Your task to perform on an android device: turn off wifi Image 0: 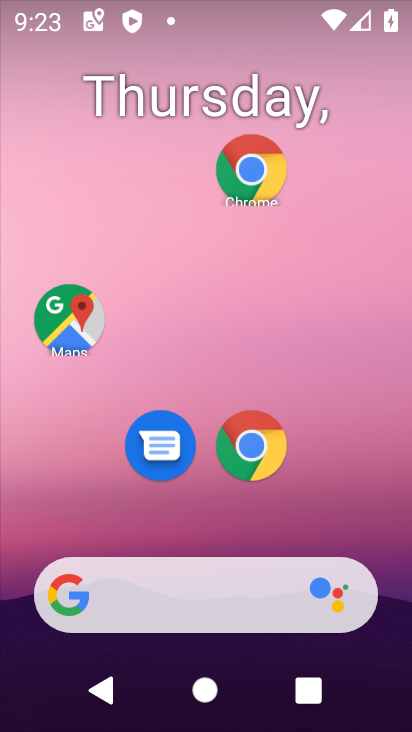
Step 0: drag from (211, 472) to (223, 1)
Your task to perform on an android device: turn off wifi Image 1: 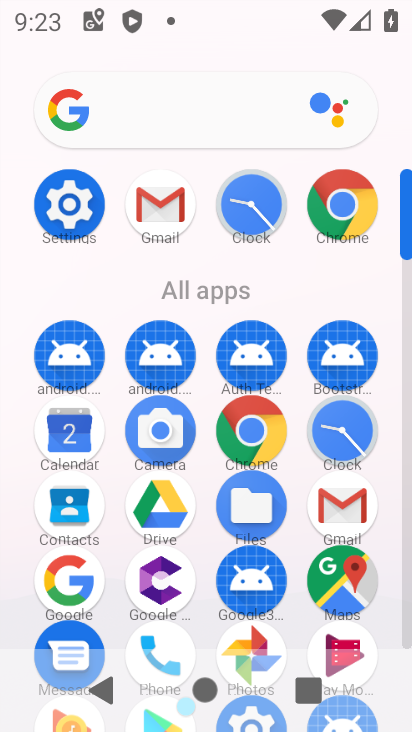
Step 1: click (45, 244)
Your task to perform on an android device: turn off wifi Image 2: 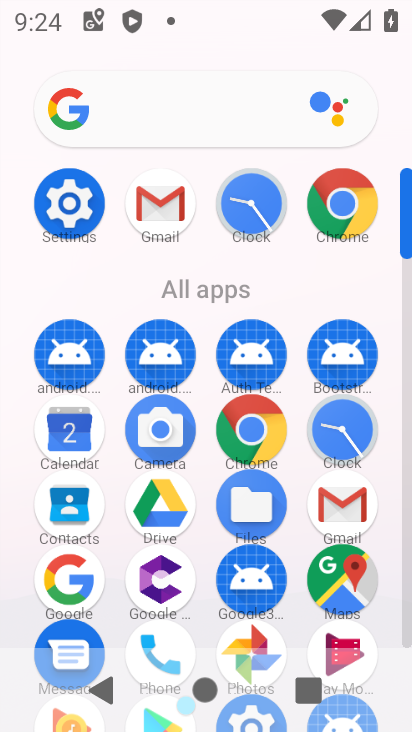
Step 2: click (69, 206)
Your task to perform on an android device: turn off wifi Image 3: 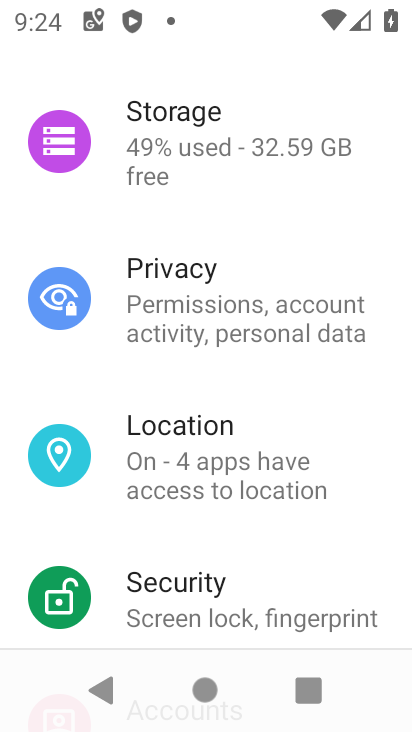
Step 3: drag from (209, 201) to (152, 595)
Your task to perform on an android device: turn off wifi Image 4: 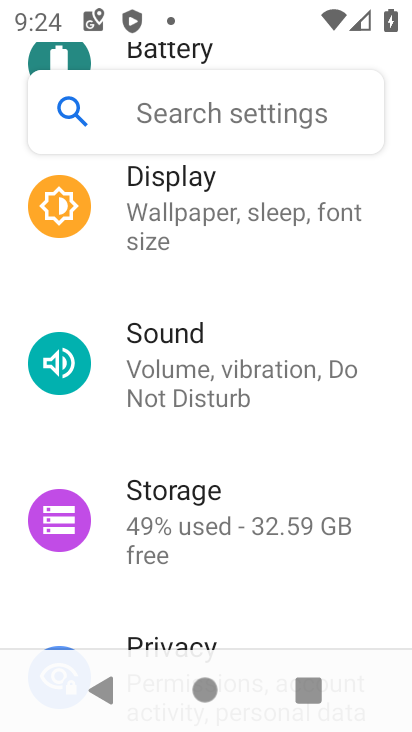
Step 4: drag from (207, 225) to (163, 676)
Your task to perform on an android device: turn off wifi Image 5: 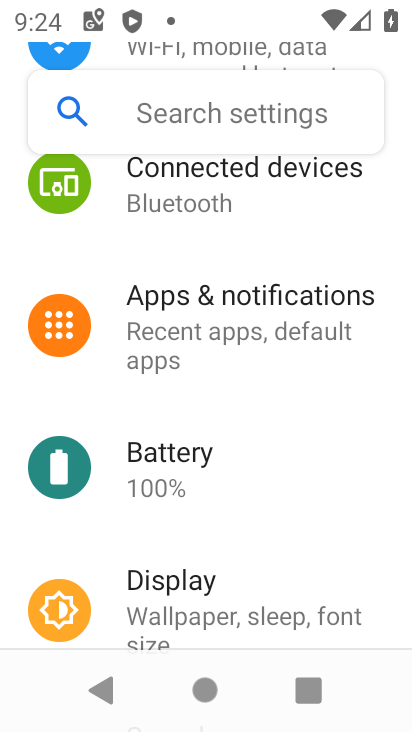
Step 5: drag from (220, 257) to (190, 558)
Your task to perform on an android device: turn off wifi Image 6: 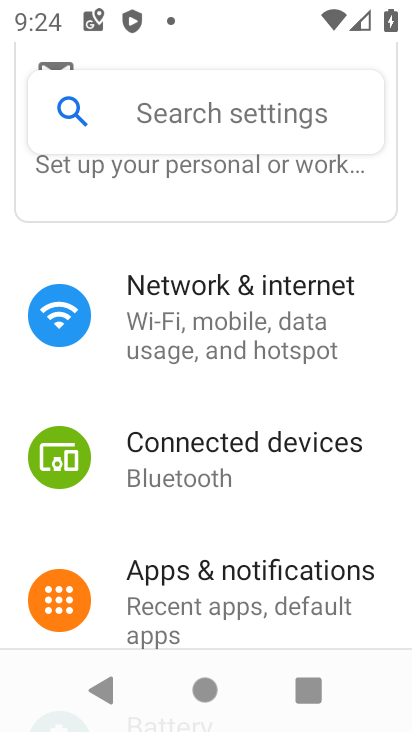
Step 6: click (199, 322)
Your task to perform on an android device: turn off wifi Image 7: 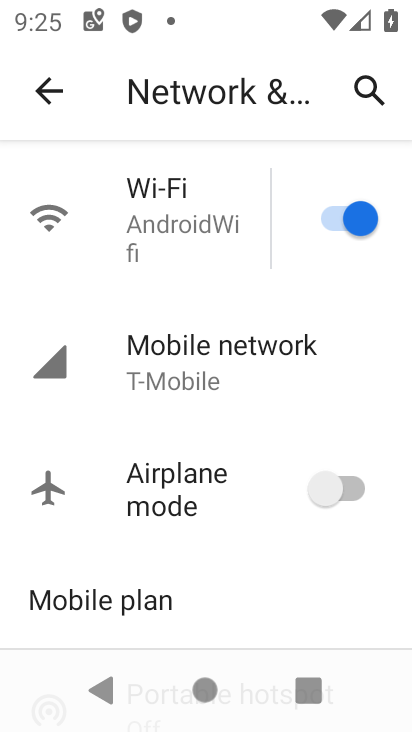
Step 7: click (334, 206)
Your task to perform on an android device: turn off wifi Image 8: 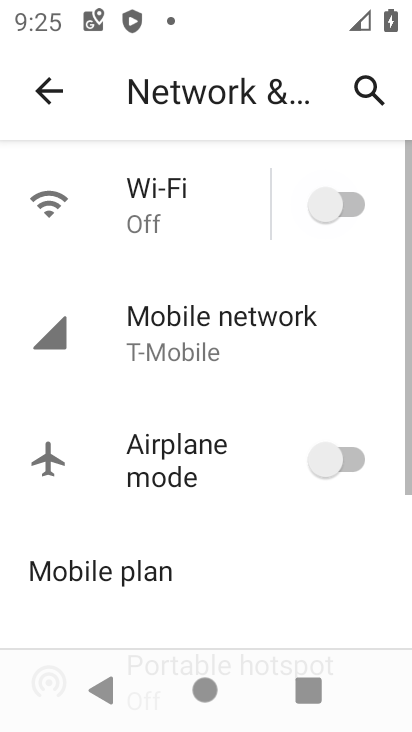
Step 8: task complete